Your task to perform on an android device: open wifi settings Image 0: 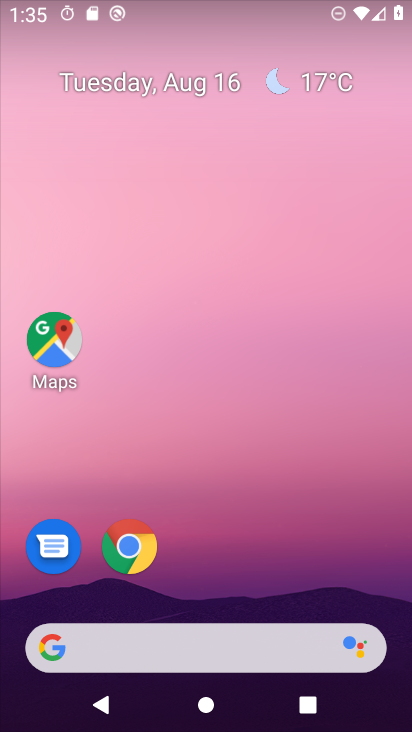
Step 0: drag from (193, 607) to (199, 104)
Your task to perform on an android device: open wifi settings Image 1: 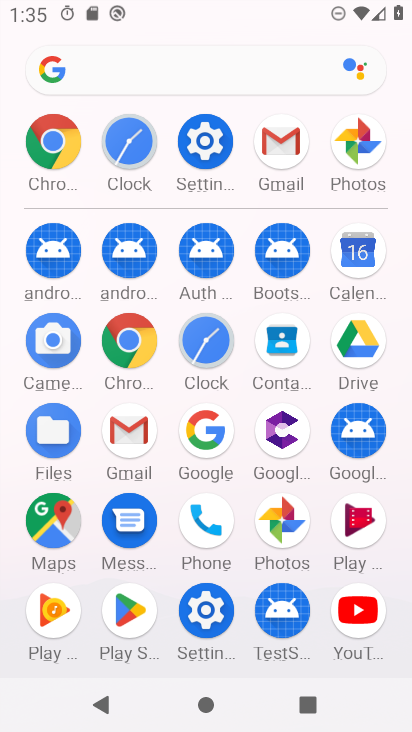
Step 1: click (198, 137)
Your task to perform on an android device: open wifi settings Image 2: 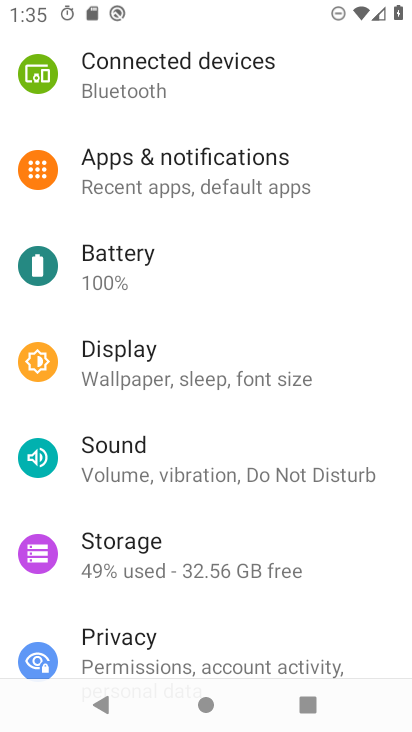
Step 2: drag from (156, 141) to (166, 527)
Your task to perform on an android device: open wifi settings Image 3: 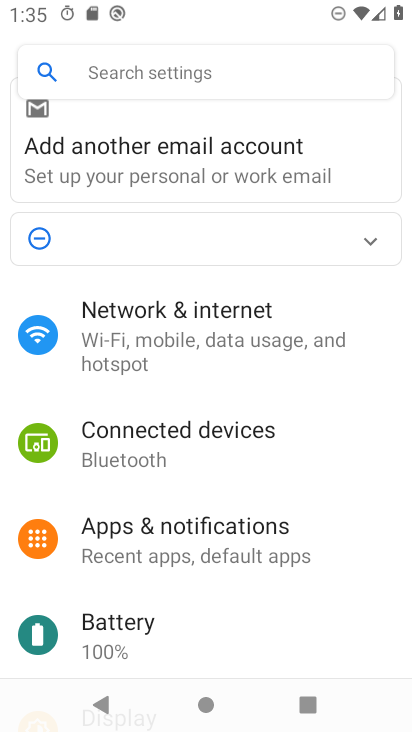
Step 3: click (132, 341)
Your task to perform on an android device: open wifi settings Image 4: 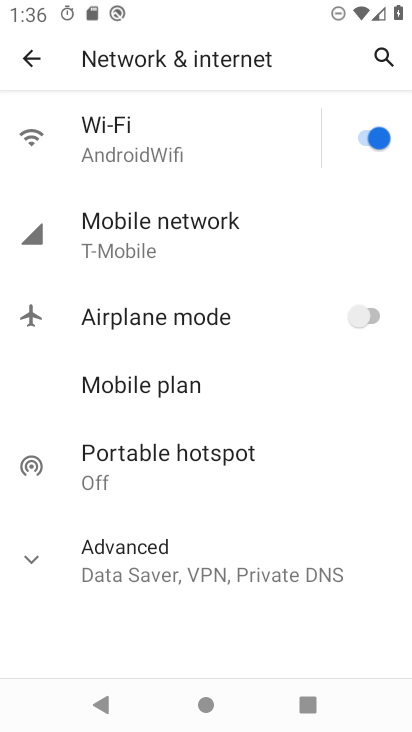
Step 4: click (114, 126)
Your task to perform on an android device: open wifi settings Image 5: 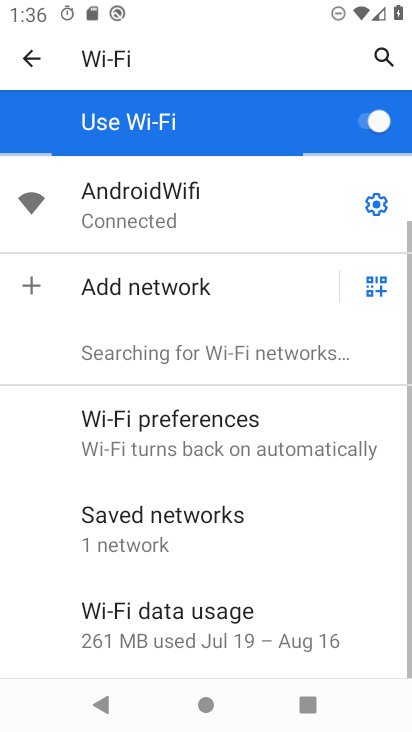
Step 5: task complete